Your task to perform on an android device: Open Chrome and go to the settings page Image 0: 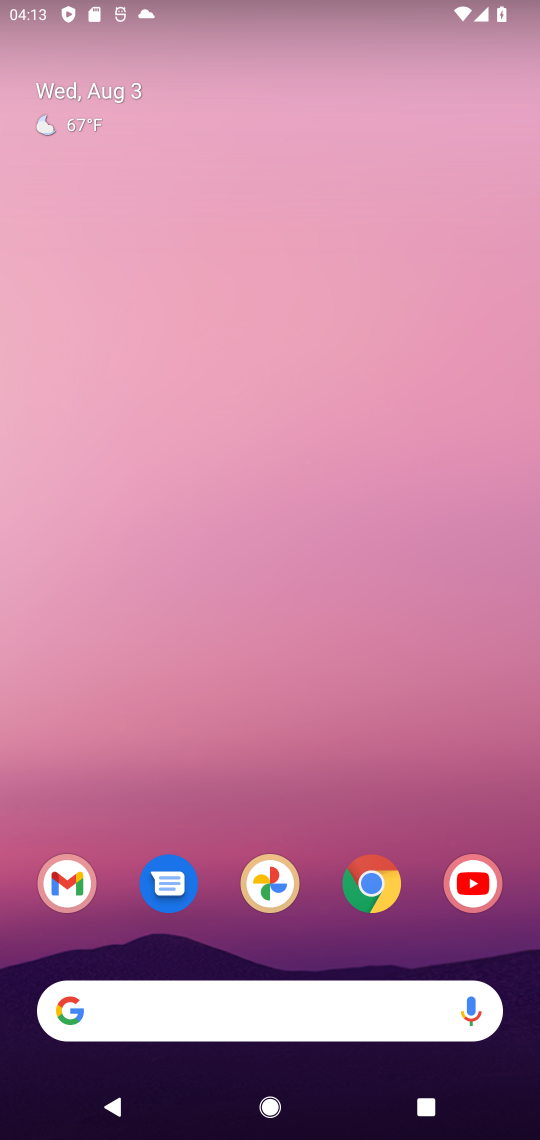
Step 0: drag from (263, 910) to (349, 42)
Your task to perform on an android device: Open Chrome and go to the settings page Image 1: 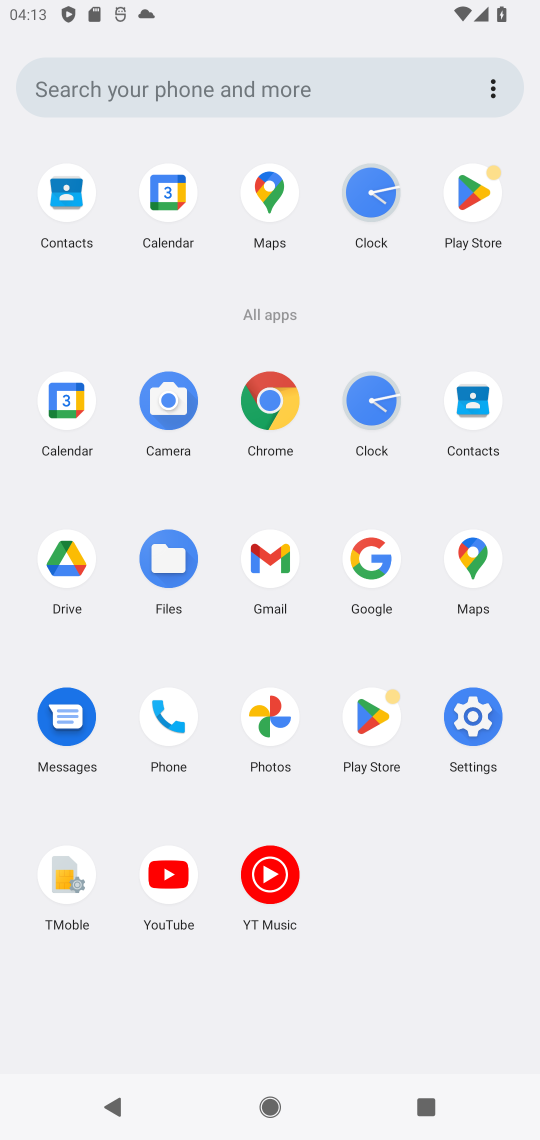
Step 1: click (263, 396)
Your task to perform on an android device: Open Chrome and go to the settings page Image 2: 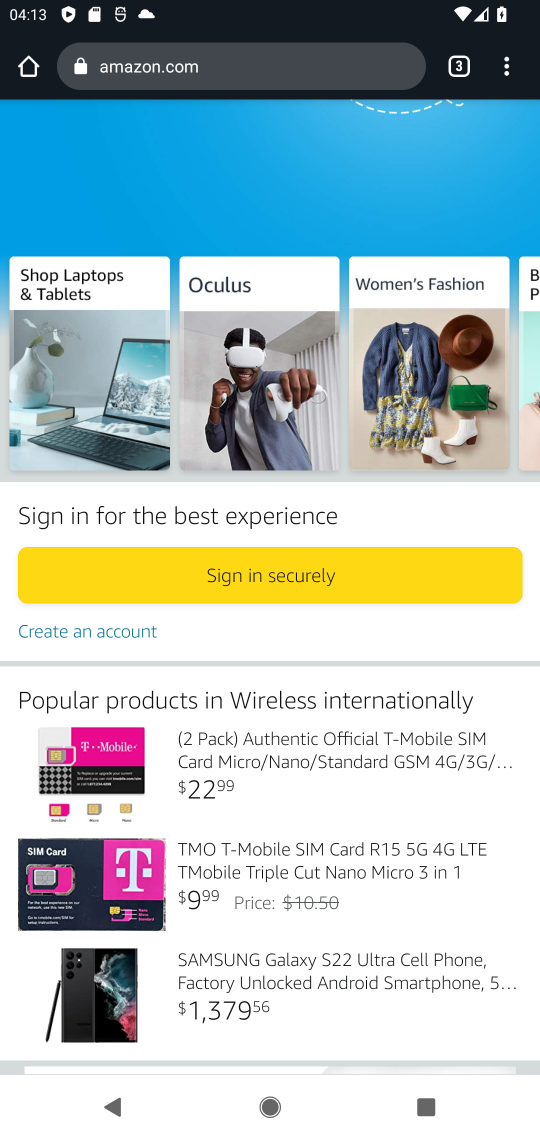
Step 2: click (500, 61)
Your task to perform on an android device: Open Chrome and go to the settings page Image 3: 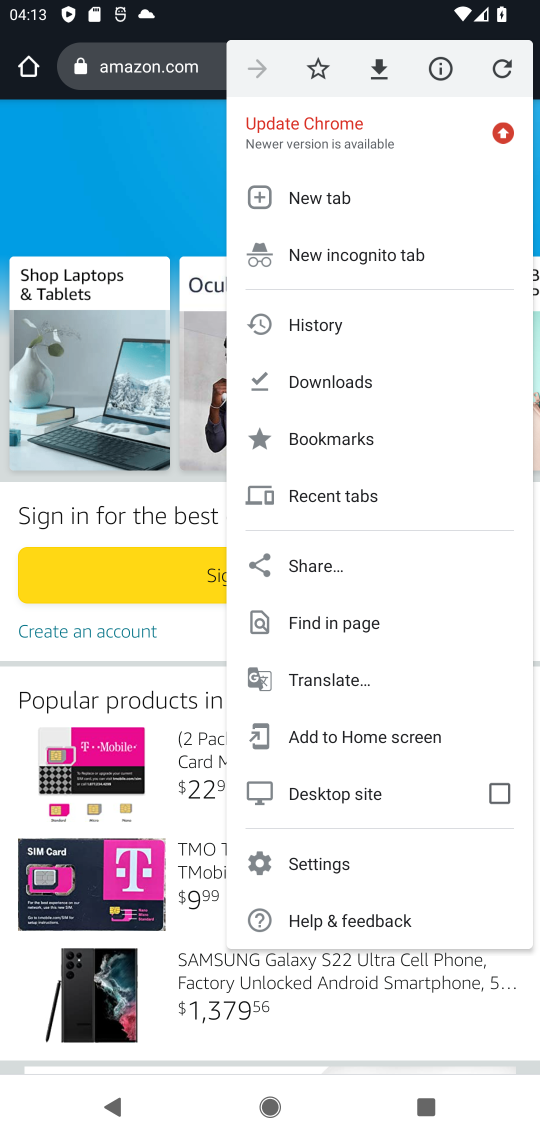
Step 3: click (288, 866)
Your task to perform on an android device: Open Chrome and go to the settings page Image 4: 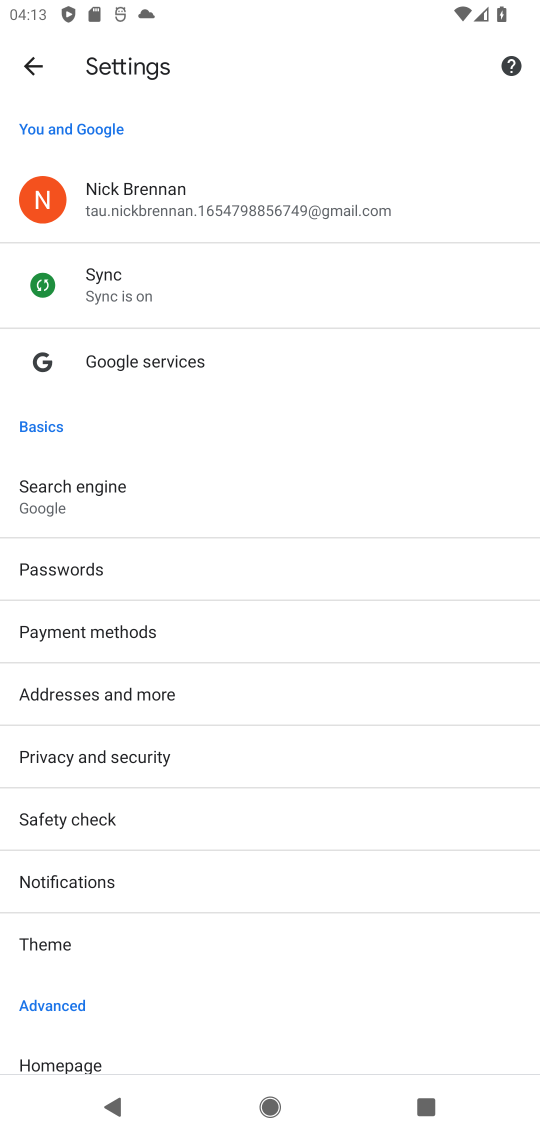
Step 4: task complete